Your task to perform on an android device: see tabs open on other devices in the chrome app Image 0: 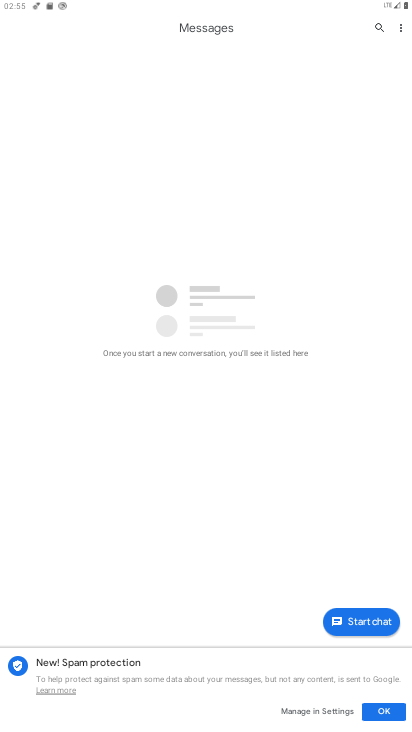
Step 0: press home button
Your task to perform on an android device: see tabs open on other devices in the chrome app Image 1: 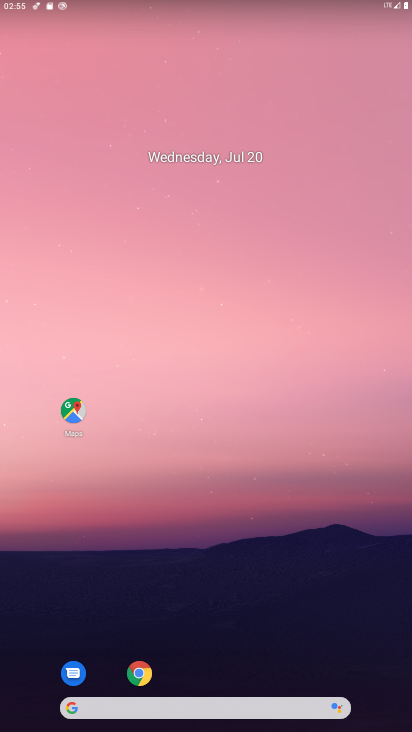
Step 1: click (133, 680)
Your task to perform on an android device: see tabs open on other devices in the chrome app Image 2: 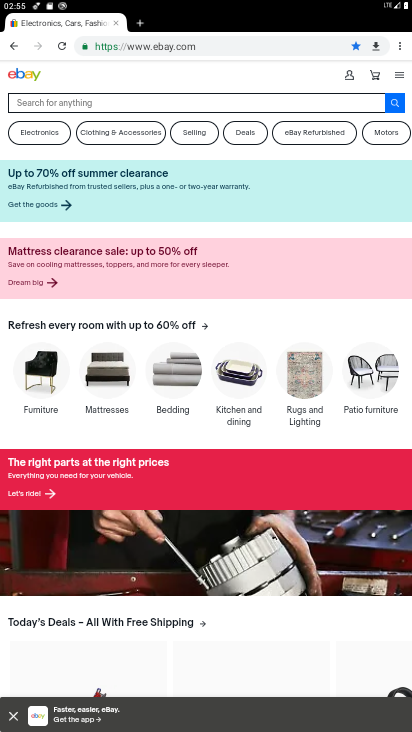
Step 2: click (399, 47)
Your task to perform on an android device: see tabs open on other devices in the chrome app Image 3: 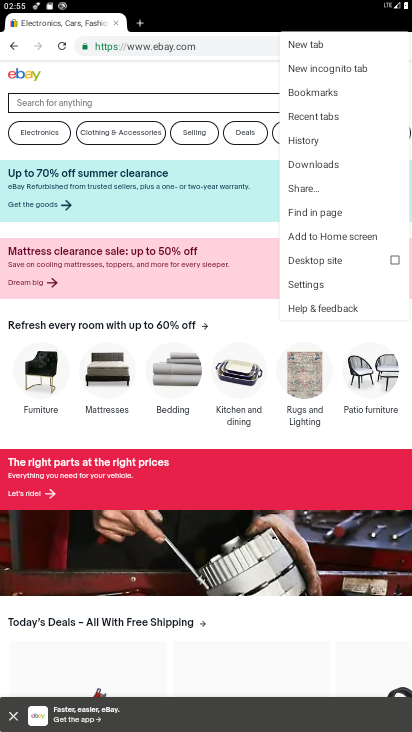
Step 3: click (320, 116)
Your task to perform on an android device: see tabs open on other devices in the chrome app Image 4: 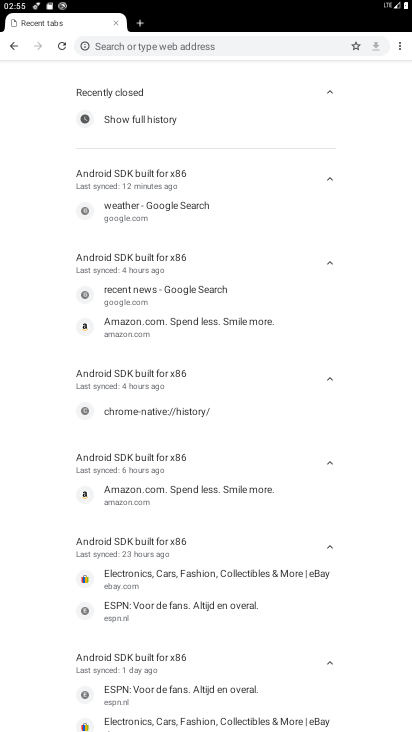
Step 4: task complete